Your task to perform on an android device: Open Google Image 0: 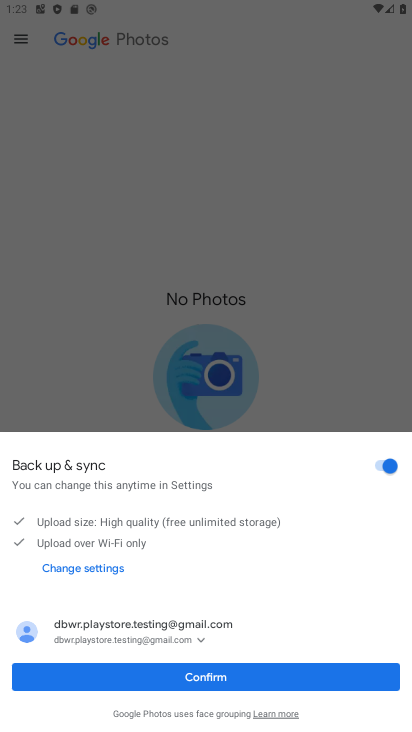
Step 0: press home button
Your task to perform on an android device: Open Google Image 1: 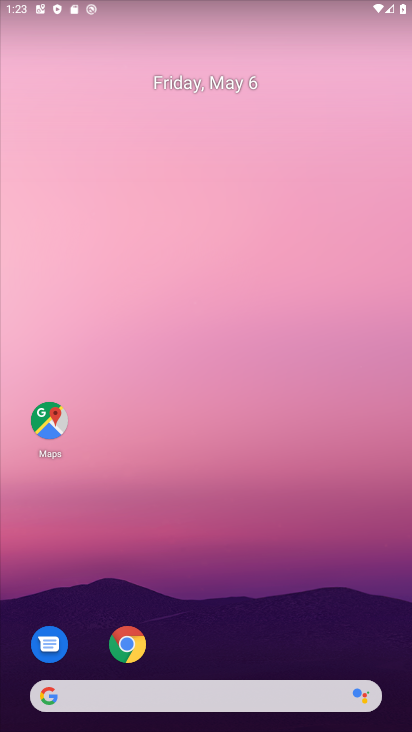
Step 1: click (147, 694)
Your task to perform on an android device: Open Google Image 2: 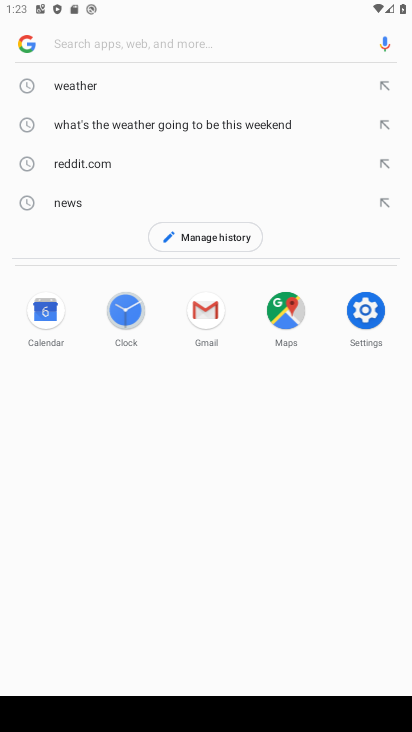
Step 2: task complete